Your task to perform on an android device: Search for a new lawnmower on Lowes.com Image 0: 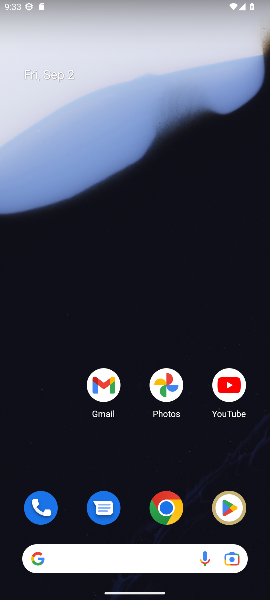
Step 0: drag from (116, 412) to (133, 55)
Your task to perform on an android device: Search for a new lawnmower on Lowes.com Image 1: 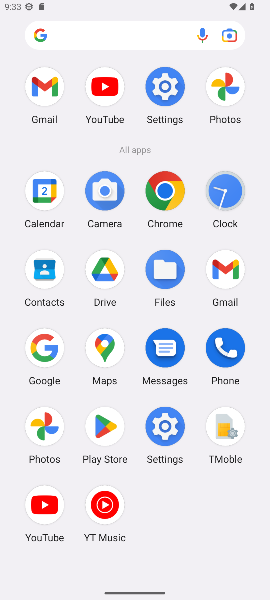
Step 1: click (175, 190)
Your task to perform on an android device: Search for a new lawnmower on Lowes.com Image 2: 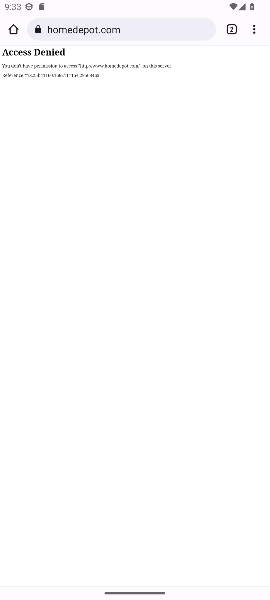
Step 2: click (106, 22)
Your task to perform on an android device: Search for a new lawnmower on Lowes.com Image 3: 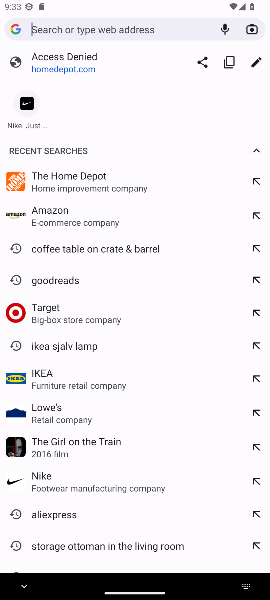
Step 3: type "Lowes.com"
Your task to perform on an android device: Search for a new lawnmower on Lowes.com Image 4: 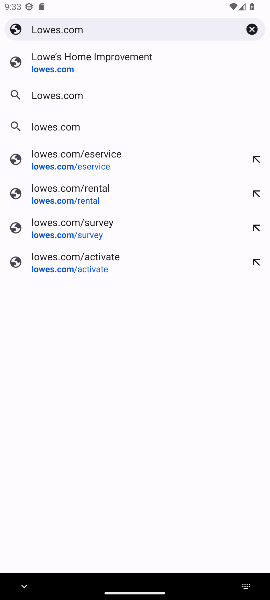
Step 4: click (59, 65)
Your task to perform on an android device: Search for a new lawnmower on Lowes.com Image 5: 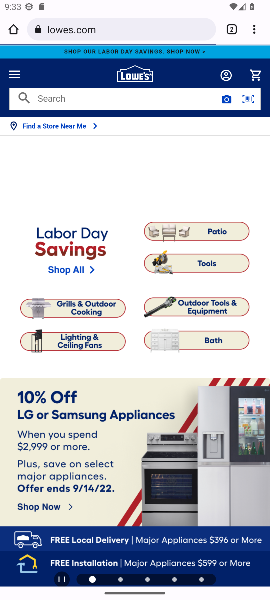
Step 5: drag from (139, 480) to (109, 222)
Your task to perform on an android device: Search for a new lawnmower on Lowes.com Image 6: 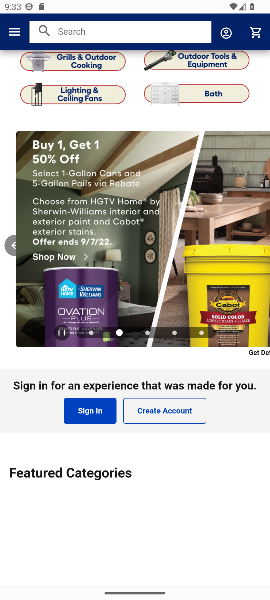
Step 6: click (128, 146)
Your task to perform on an android device: Search for a new lawnmower on Lowes.com Image 7: 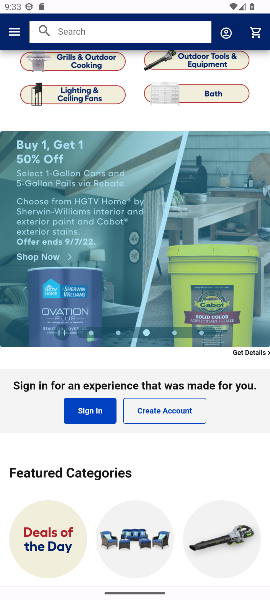
Step 7: task complete